Your task to perform on an android device: Go to Google Image 0: 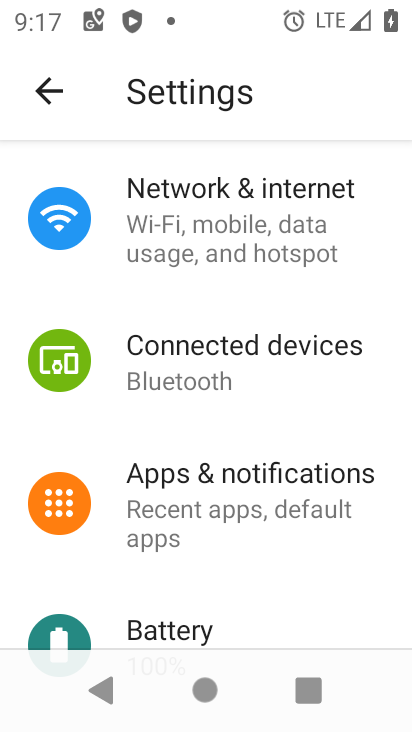
Step 0: press home button
Your task to perform on an android device: Go to Google Image 1: 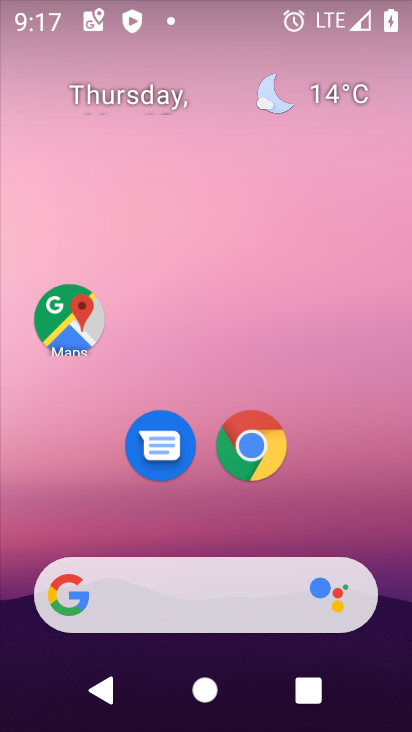
Step 1: drag from (222, 712) to (225, 95)
Your task to perform on an android device: Go to Google Image 2: 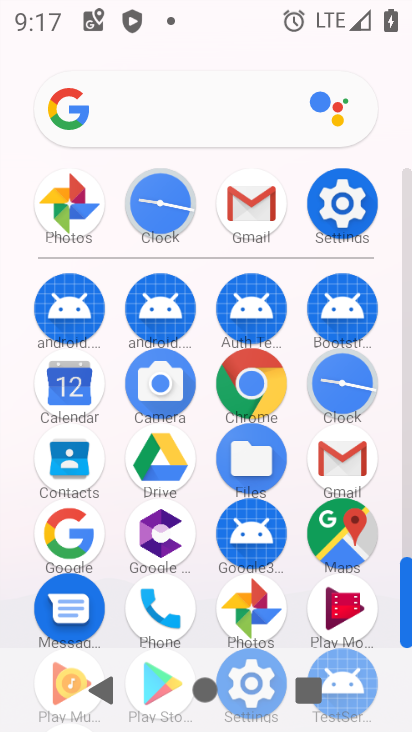
Step 2: click (73, 530)
Your task to perform on an android device: Go to Google Image 3: 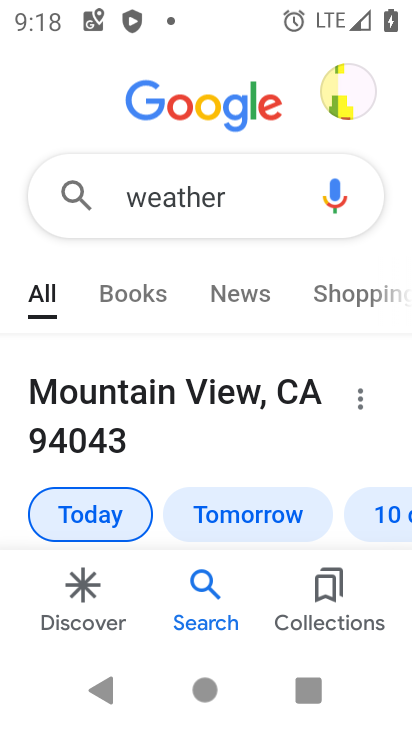
Step 3: task complete